Your task to perform on an android device: What is the recent news? Image 0: 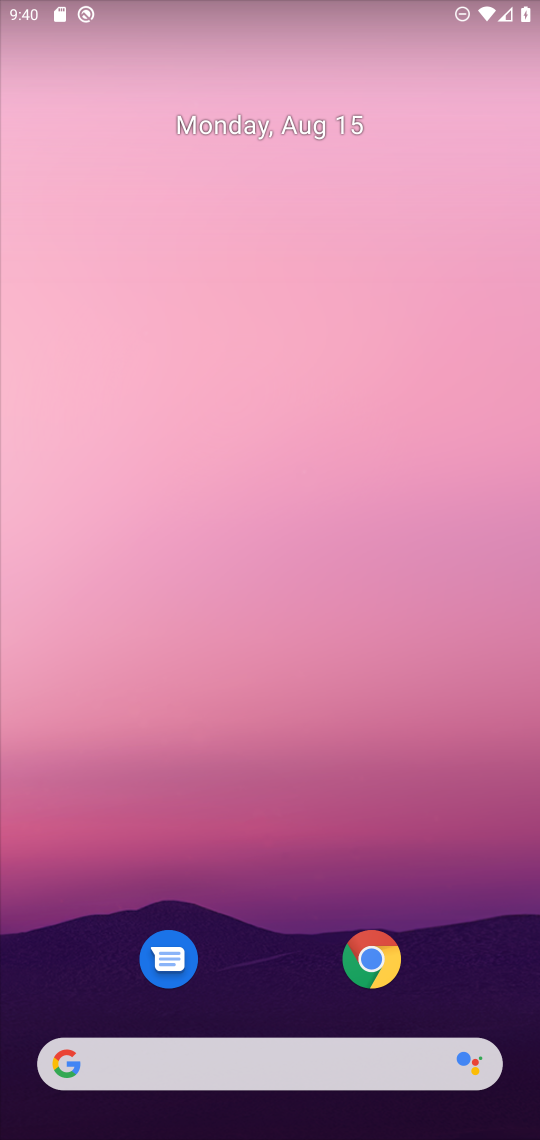
Step 0: click (245, 1045)
Your task to perform on an android device: What is the recent news? Image 1: 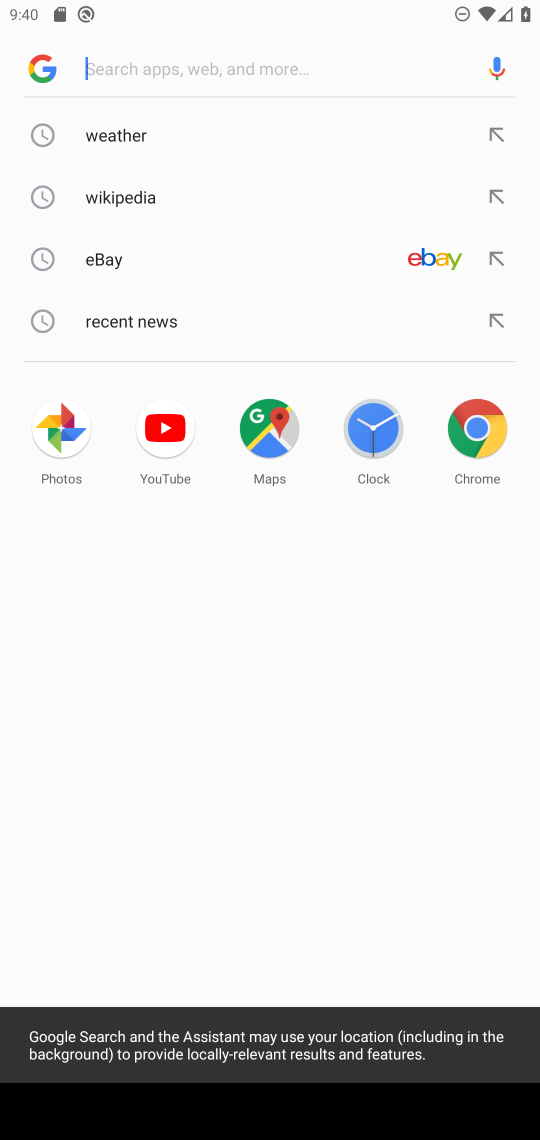
Step 1: click (136, 320)
Your task to perform on an android device: What is the recent news? Image 2: 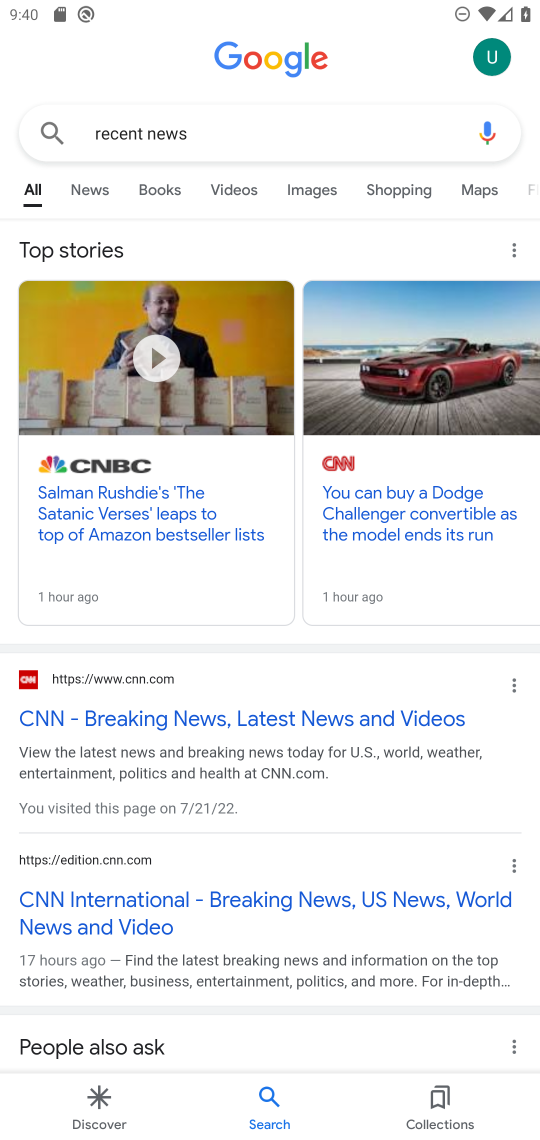
Step 2: task complete